Your task to perform on an android device: change the clock display to show seconds Image 0: 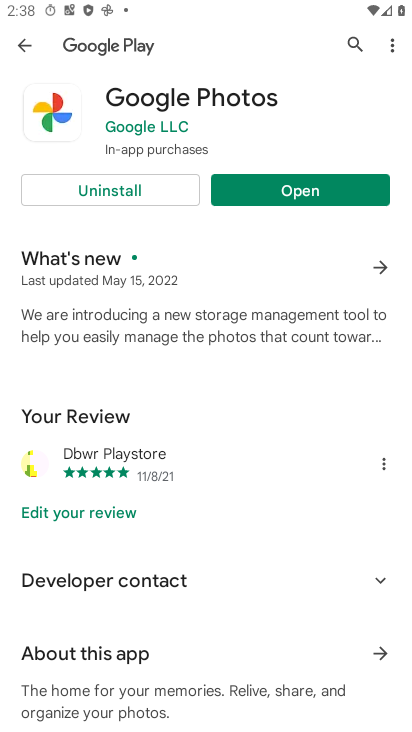
Step 0: press home button
Your task to perform on an android device: change the clock display to show seconds Image 1: 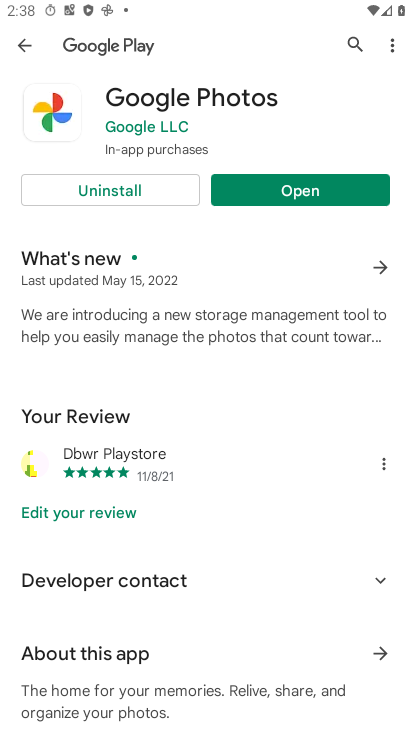
Step 1: press home button
Your task to perform on an android device: change the clock display to show seconds Image 2: 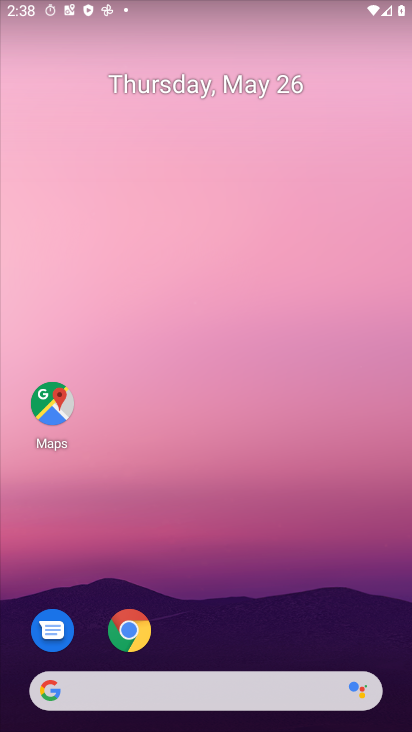
Step 2: drag from (228, 575) to (174, 159)
Your task to perform on an android device: change the clock display to show seconds Image 3: 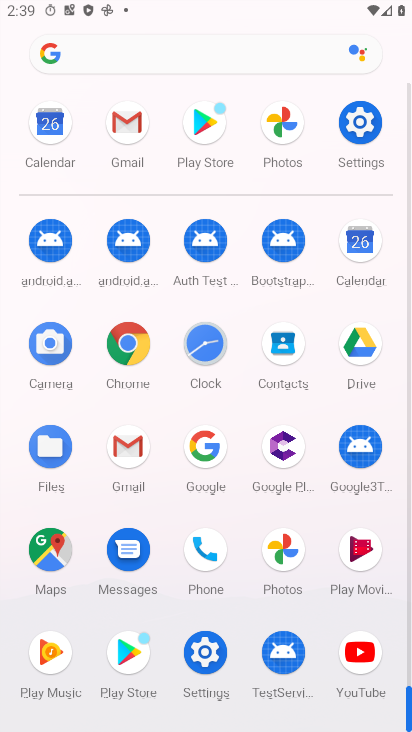
Step 3: click (195, 349)
Your task to perform on an android device: change the clock display to show seconds Image 4: 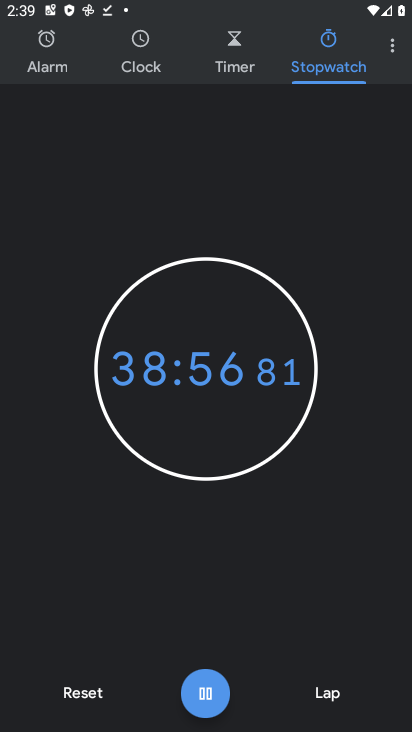
Step 4: click (372, 33)
Your task to perform on an android device: change the clock display to show seconds Image 5: 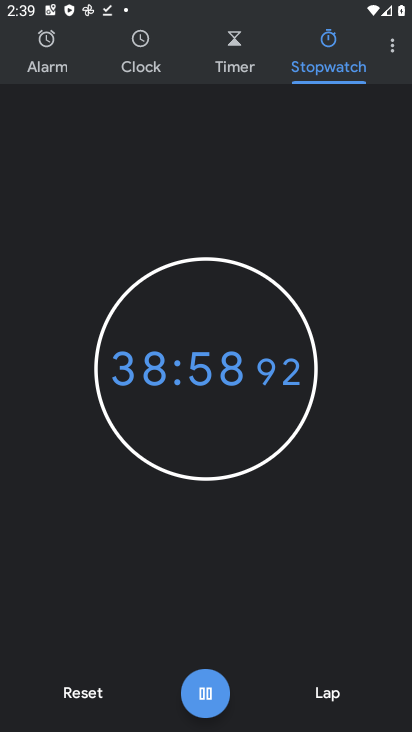
Step 5: click (394, 51)
Your task to perform on an android device: change the clock display to show seconds Image 6: 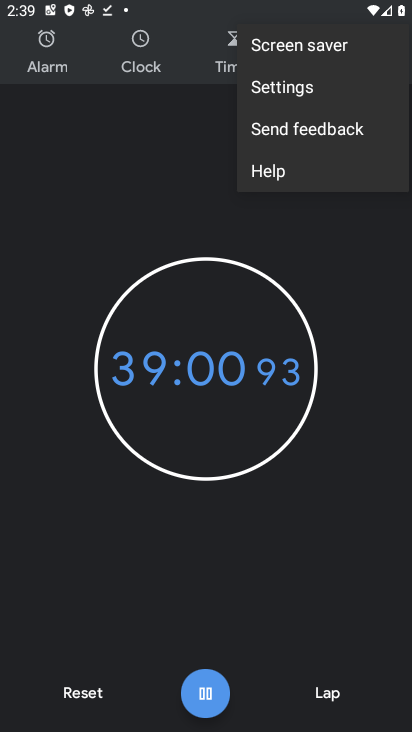
Step 6: click (351, 96)
Your task to perform on an android device: change the clock display to show seconds Image 7: 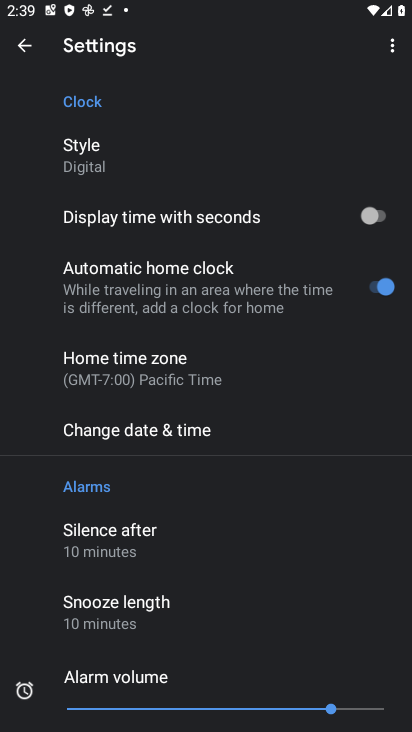
Step 7: click (156, 424)
Your task to perform on an android device: change the clock display to show seconds Image 8: 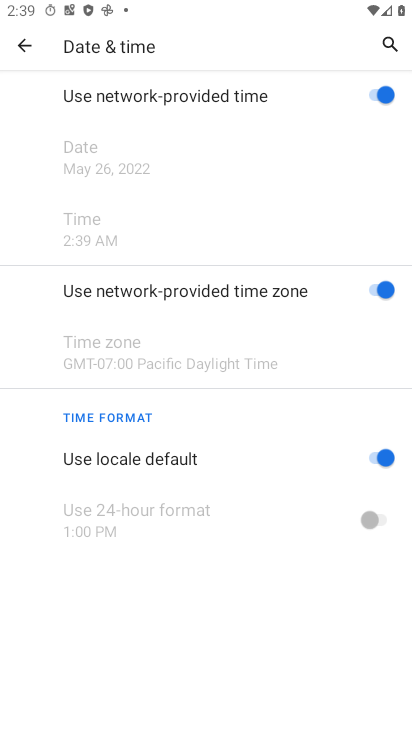
Step 8: press back button
Your task to perform on an android device: change the clock display to show seconds Image 9: 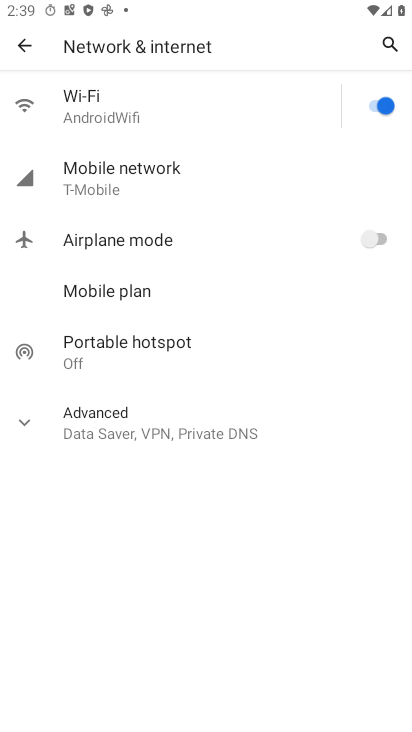
Step 9: press back button
Your task to perform on an android device: change the clock display to show seconds Image 10: 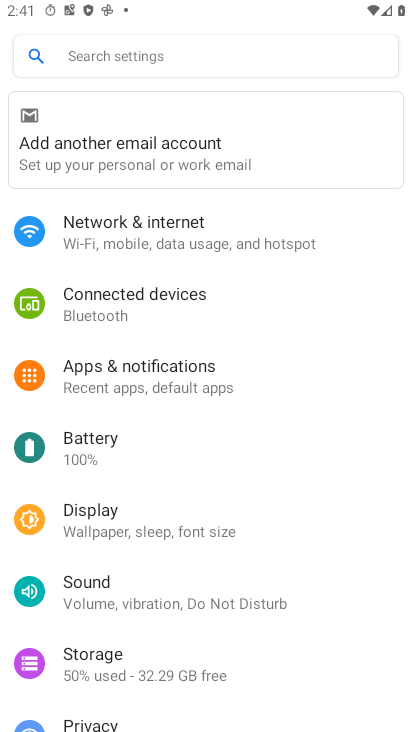
Step 10: drag from (205, 650) to (174, 335)
Your task to perform on an android device: change the clock display to show seconds Image 11: 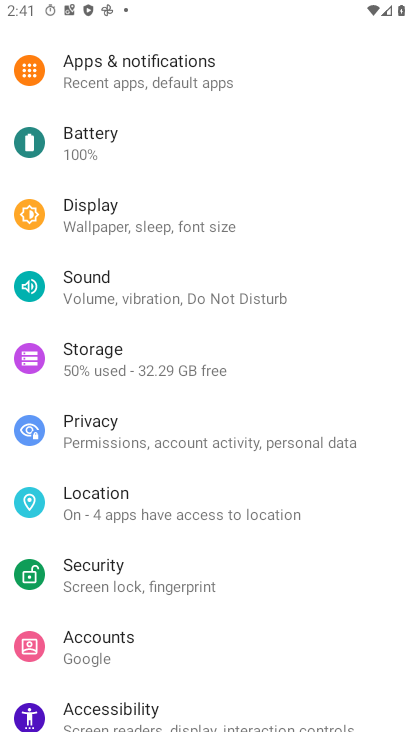
Step 11: drag from (187, 675) to (190, 348)
Your task to perform on an android device: change the clock display to show seconds Image 12: 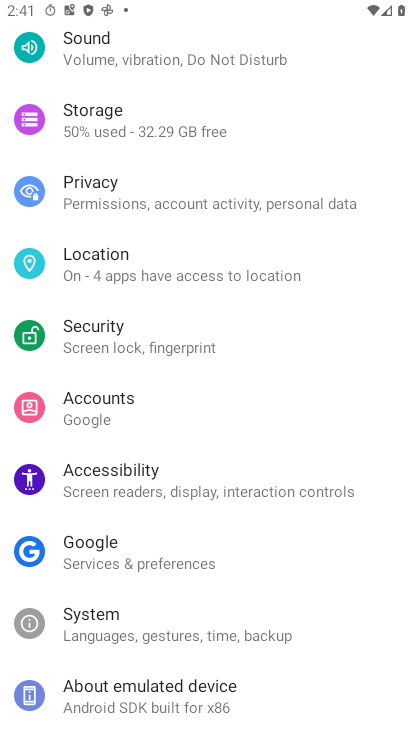
Step 12: drag from (112, 248) to (140, 649)
Your task to perform on an android device: change the clock display to show seconds Image 13: 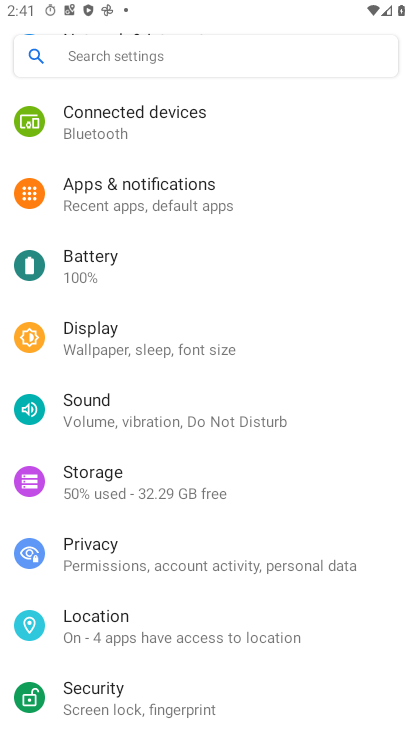
Step 13: click (150, 351)
Your task to perform on an android device: change the clock display to show seconds Image 14: 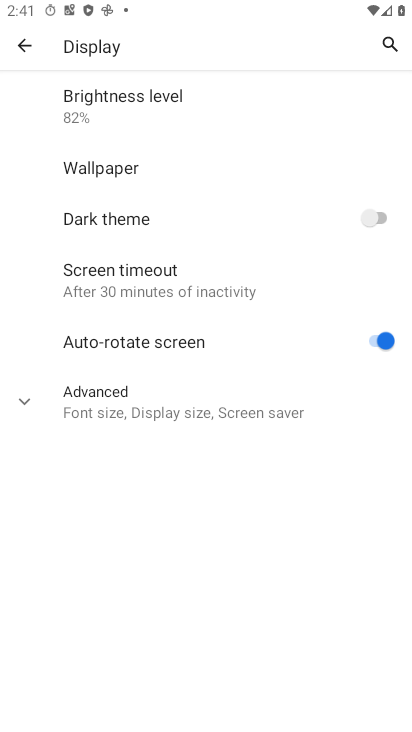
Step 14: task complete